Your task to perform on an android device: Open Google Chrome and click the shortcut for Amazon.com Image 0: 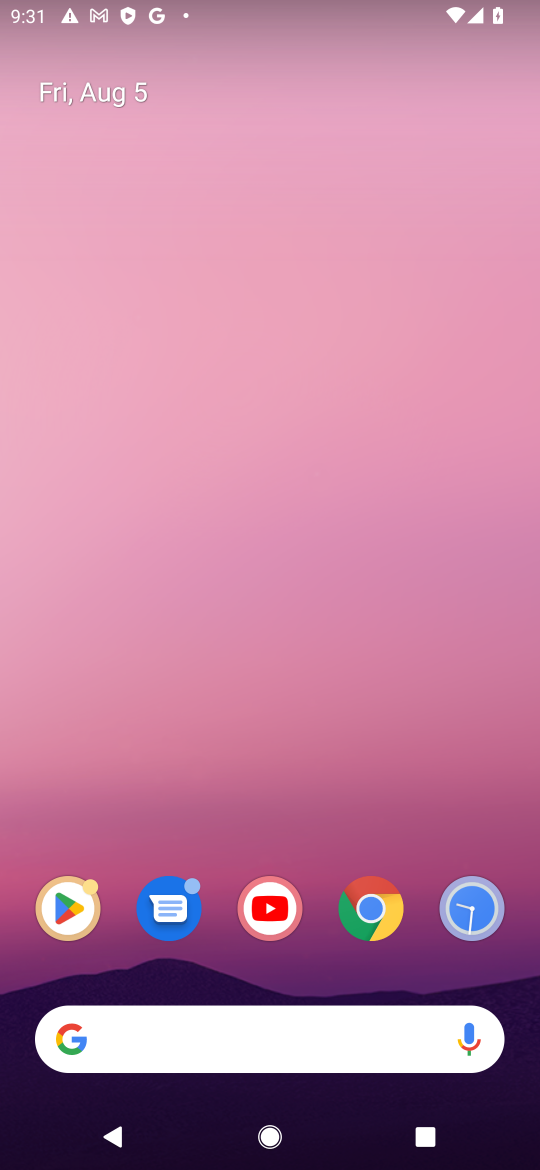
Step 0: click (369, 908)
Your task to perform on an android device: Open Google Chrome and click the shortcut for Amazon.com Image 1: 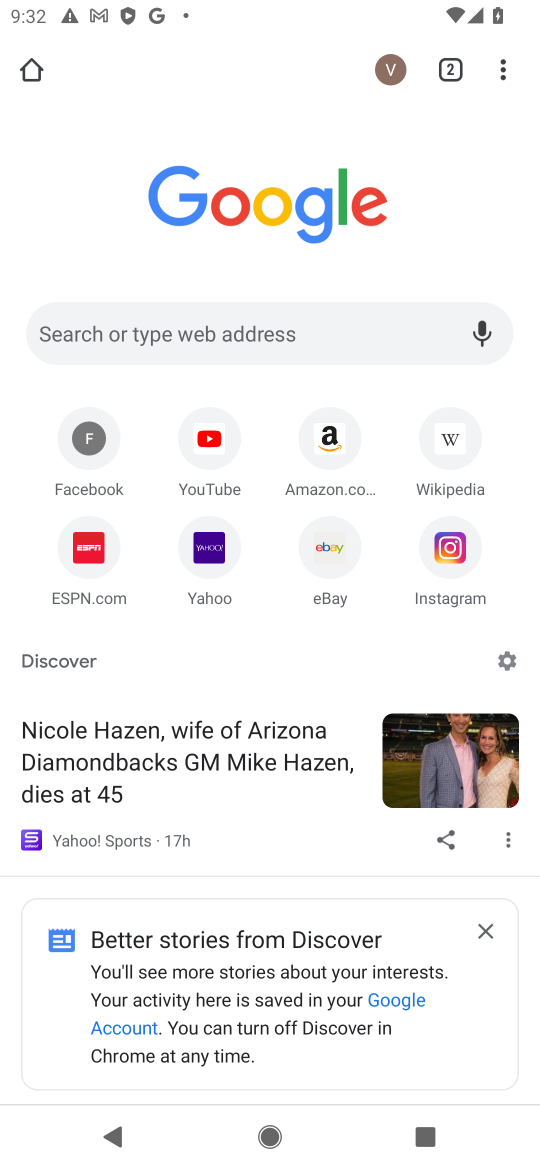
Step 1: click (346, 447)
Your task to perform on an android device: Open Google Chrome and click the shortcut for Amazon.com Image 2: 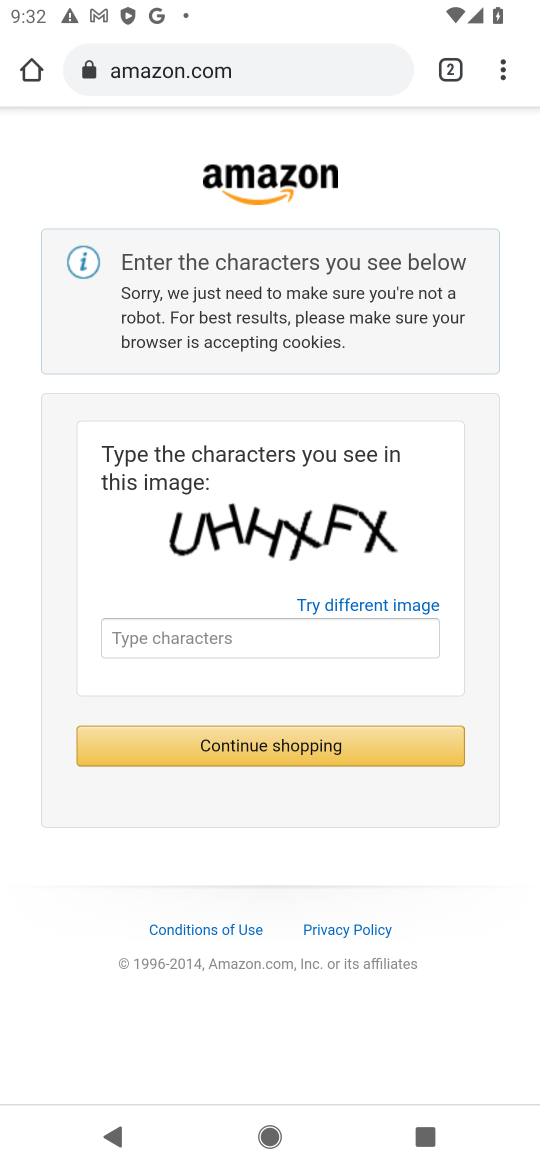
Step 2: task complete